Your task to perform on an android device: toggle improve location accuracy Image 0: 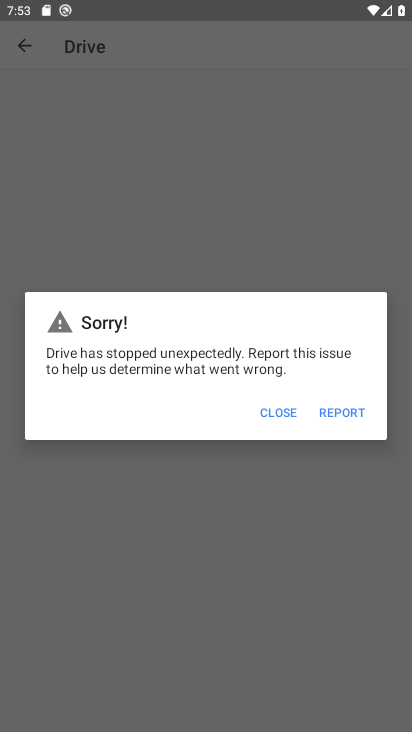
Step 0: press home button
Your task to perform on an android device: toggle improve location accuracy Image 1: 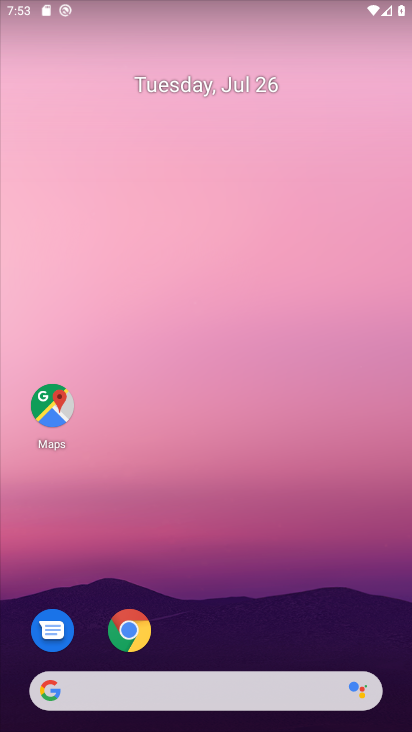
Step 1: drag from (400, 688) to (353, 104)
Your task to perform on an android device: toggle improve location accuracy Image 2: 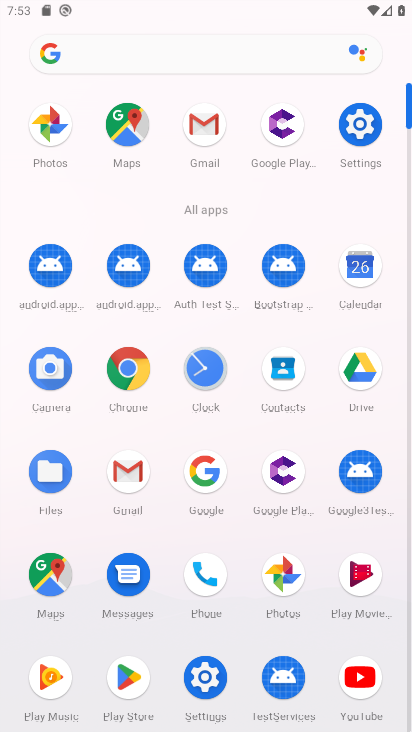
Step 2: click (353, 123)
Your task to perform on an android device: toggle improve location accuracy Image 3: 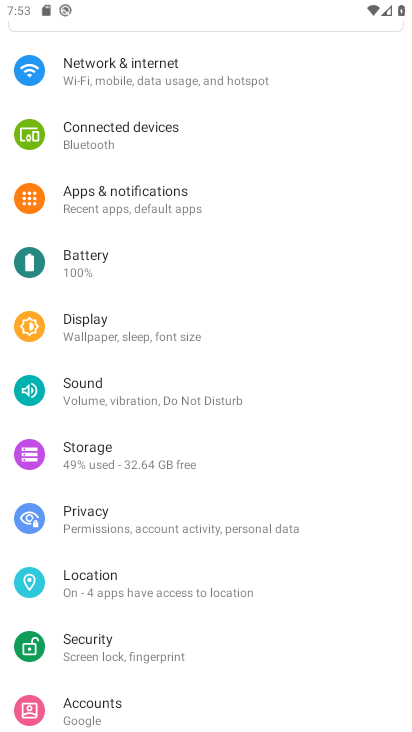
Step 3: click (82, 578)
Your task to perform on an android device: toggle improve location accuracy Image 4: 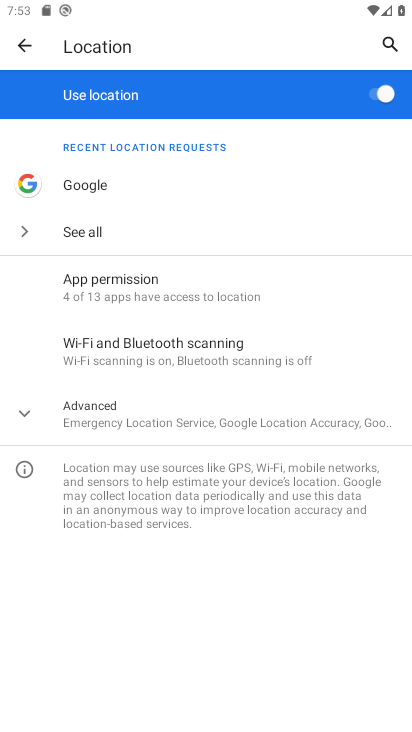
Step 4: click (27, 415)
Your task to perform on an android device: toggle improve location accuracy Image 5: 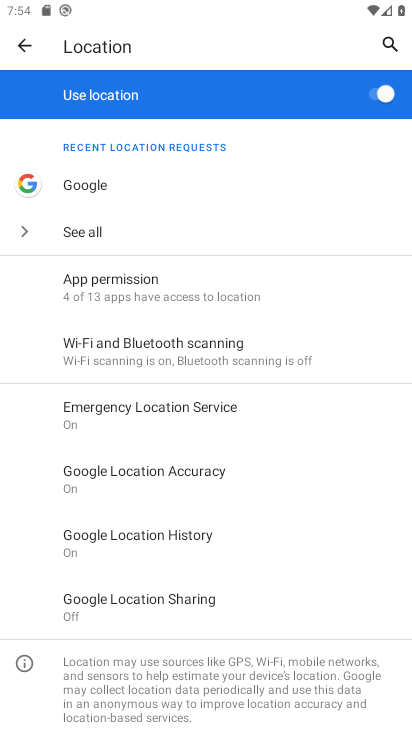
Step 5: click (118, 474)
Your task to perform on an android device: toggle improve location accuracy Image 6: 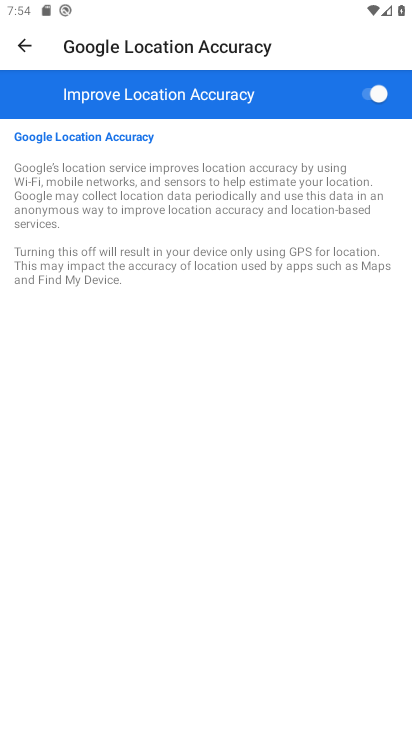
Step 6: click (362, 92)
Your task to perform on an android device: toggle improve location accuracy Image 7: 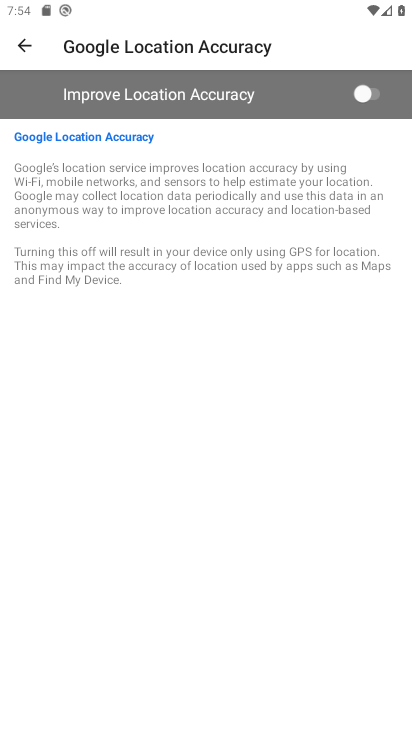
Step 7: task complete